Your task to perform on an android device: Open calendar and show me the fourth week of next month Image 0: 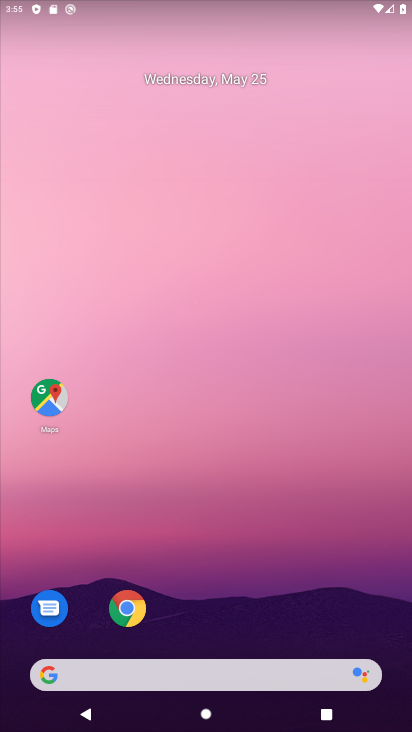
Step 0: drag from (267, 619) to (347, 80)
Your task to perform on an android device: Open calendar and show me the fourth week of next month Image 1: 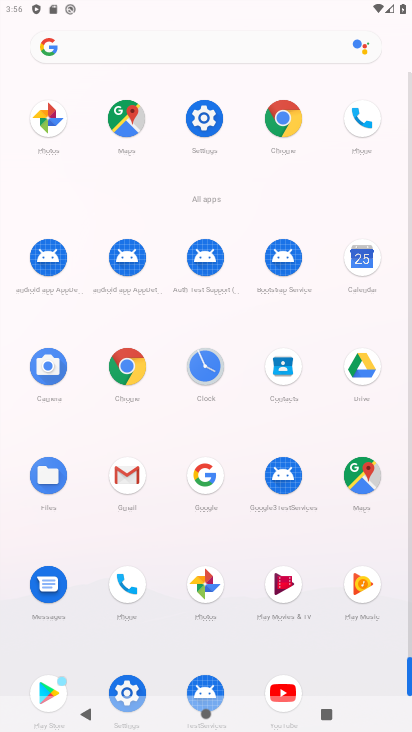
Step 1: click (361, 258)
Your task to perform on an android device: Open calendar and show me the fourth week of next month Image 2: 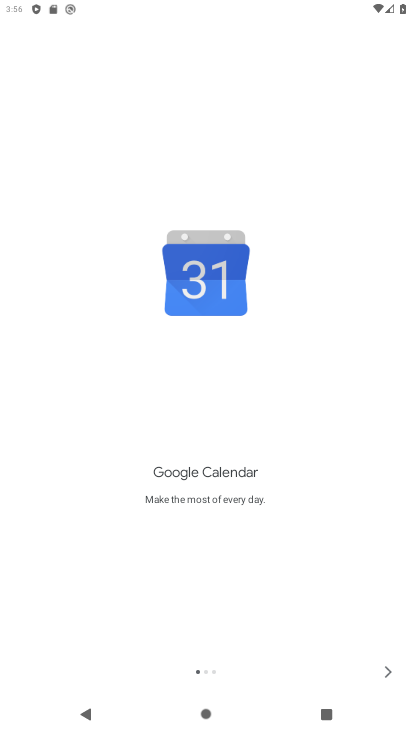
Step 2: click (388, 672)
Your task to perform on an android device: Open calendar and show me the fourth week of next month Image 3: 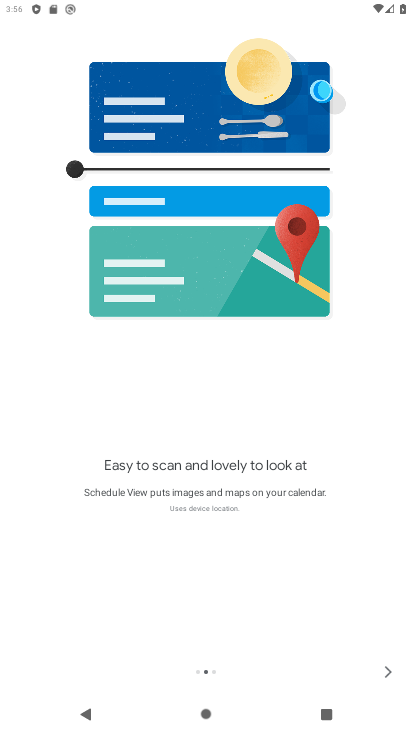
Step 3: click (388, 672)
Your task to perform on an android device: Open calendar and show me the fourth week of next month Image 4: 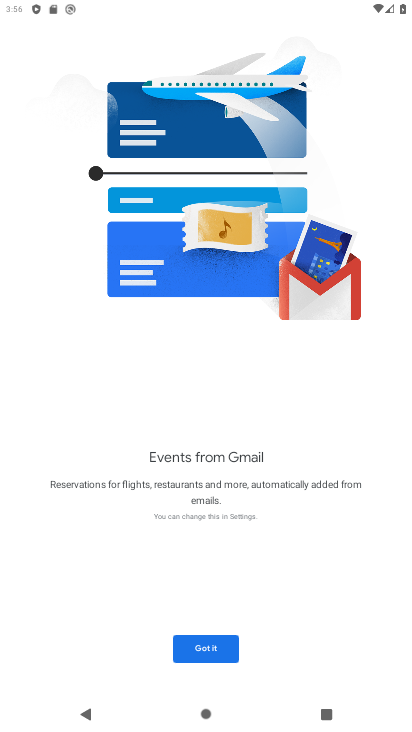
Step 4: click (209, 649)
Your task to perform on an android device: Open calendar and show me the fourth week of next month Image 5: 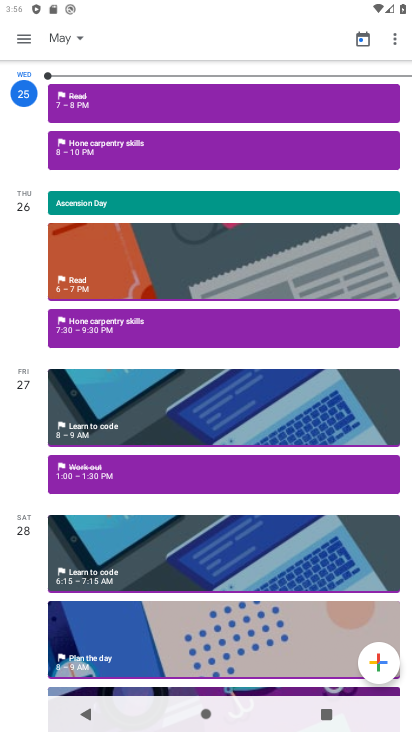
Step 5: click (82, 36)
Your task to perform on an android device: Open calendar and show me the fourth week of next month Image 6: 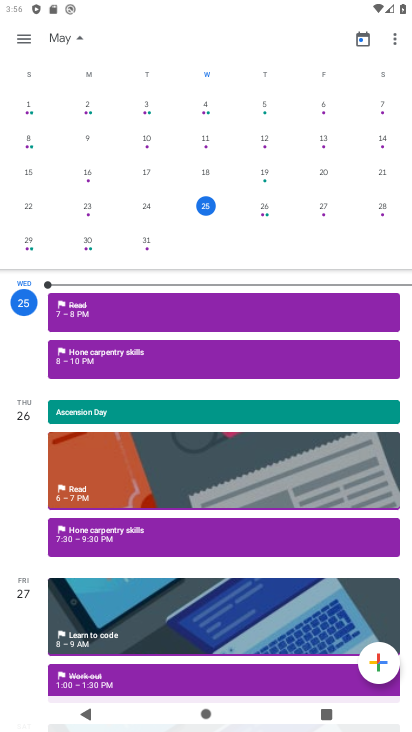
Step 6: drag from (352, 194) to (0, 189)
Your task to perform on an android device: Open calendar and show me the fourth week of next month Image 7: 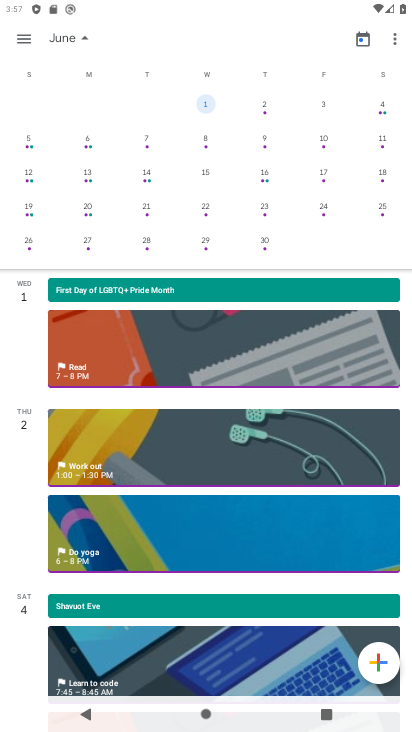
Step 7: click (91, 244)
Your task to perform on an android device: Open calendar and show me the fourth week of next month Image 8: 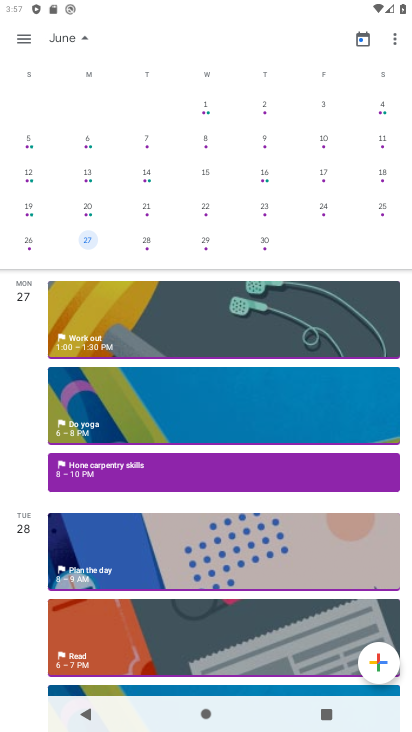
Step 8: click (29, 41)
Your task to perform on an android device: Open calendar and show me the fourth week of next month Image 9: 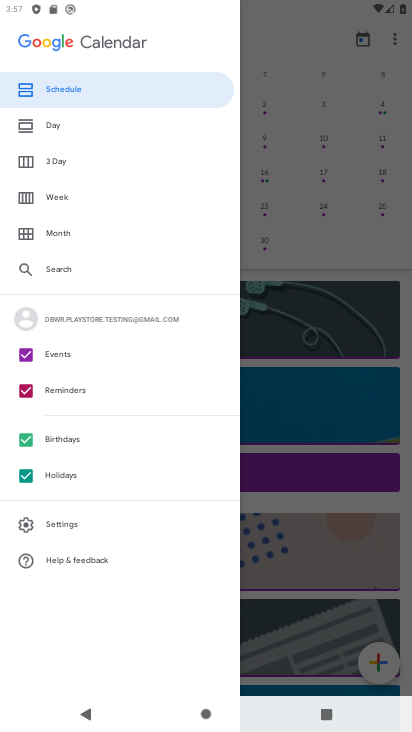
Step 9: click (52, 194)
Your task to perform on an android device: Open calendar and show me the fourth week of next month Image 10: 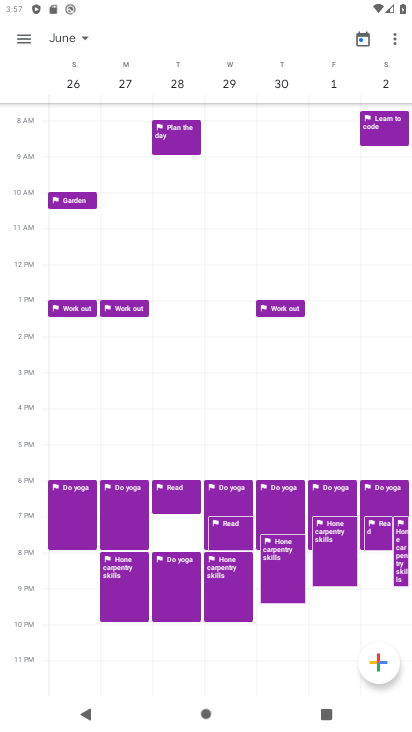
Step 10: task complete